Your task to perform on an android device: What's on my calendar tomorrow? Image 0: 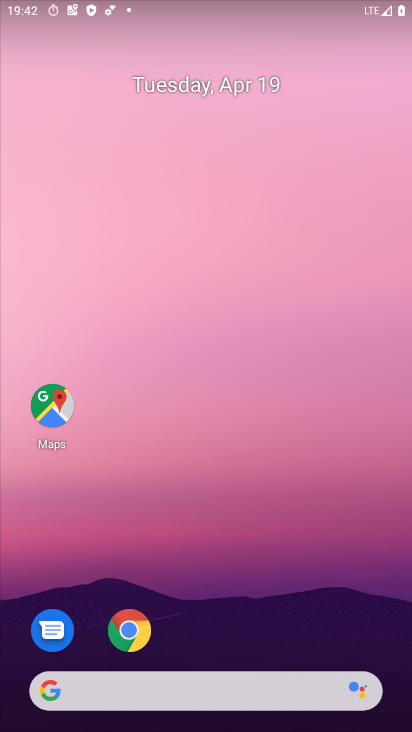
Step 0: click (160, 696)
Your task to perform on an android device: What's on my calendar tomorrow? Image 1: 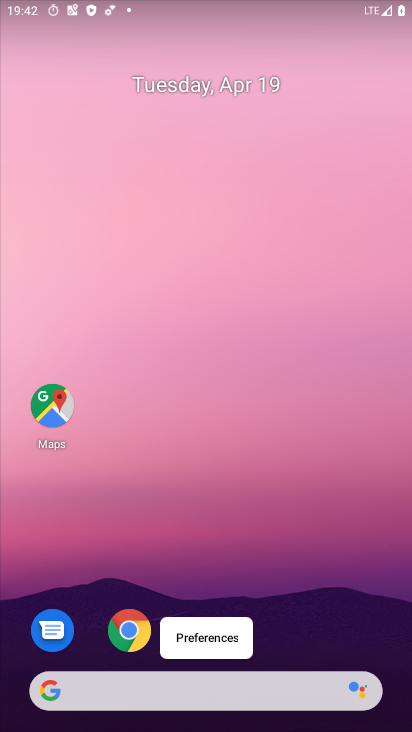
Step 1: click (223, 709)
Your task to perform on an android device: What's on my calendar tomorrow? Image 2: 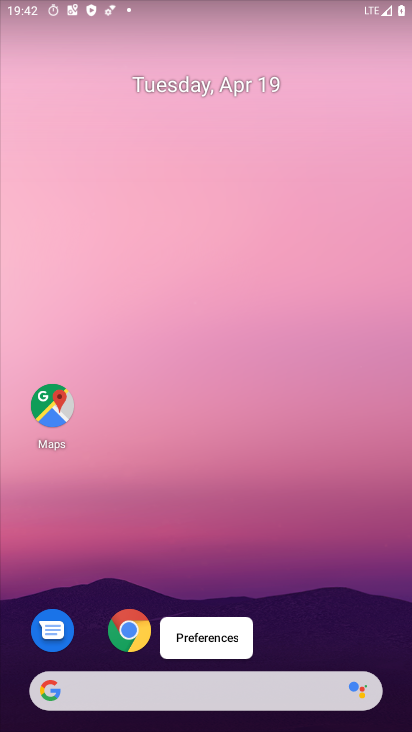
Step 2: click (165, 700)
Your task to perform on an android device: What's on my calendar tomorrow? Image 3: 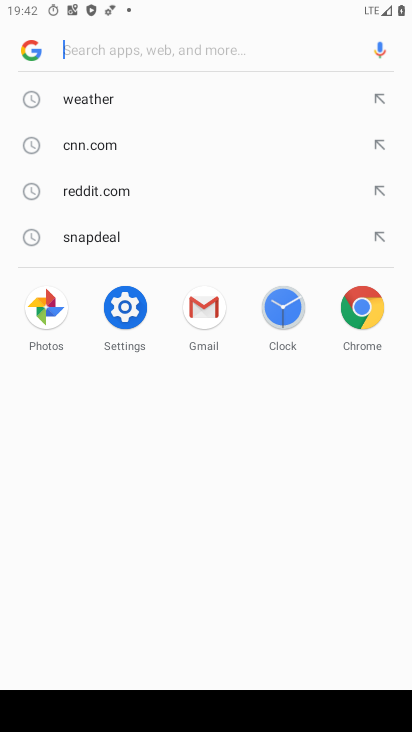
Step 3: click (98, 78)
Your task to perform on an android device: What's on my calendar tomorrow? Image 4: 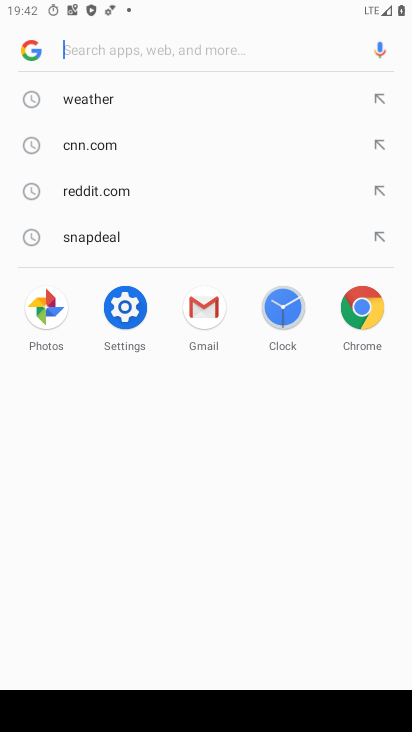
Step 4: click (78, 103)
Your task to perform on an android device: What's on my calendar tomorrow? Image 5: 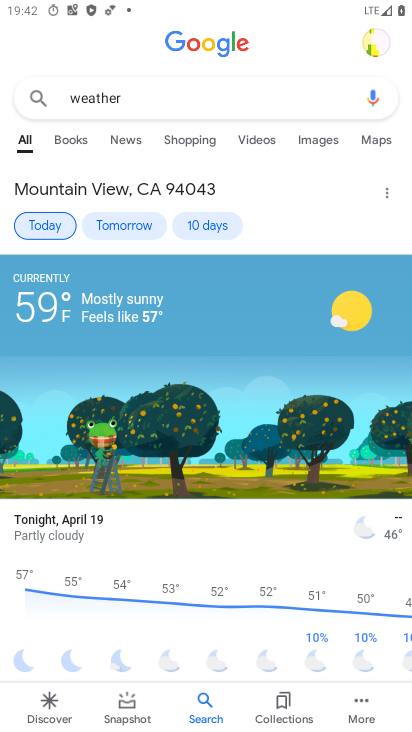
Step 5: click (131, 229)
Your task to perform on an android device: What's on my calendar tomorrow? Image 6: 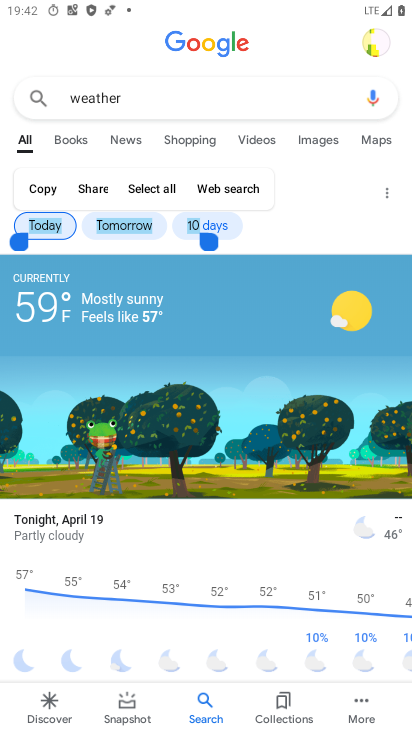
Step 6: click (130, 224)
Your task to perform on an android device: What's on my calendar tomorrow? Image 7: 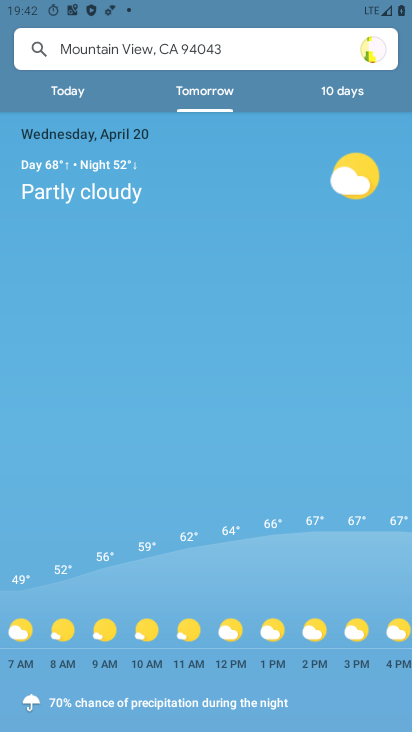
Step 7: task complete